Your task to perform on an android device: Open Google Maps Image 0: 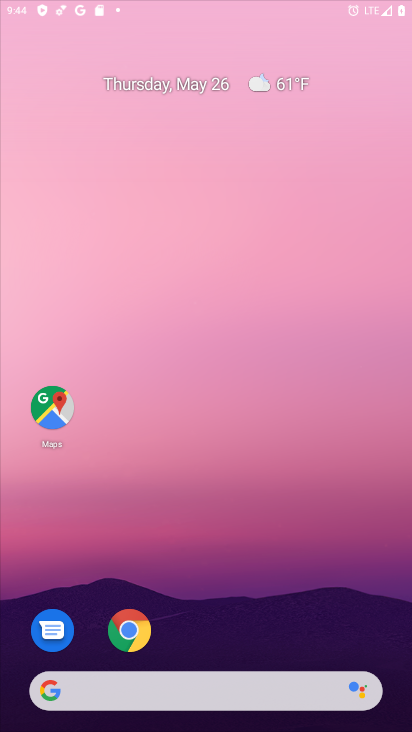
Step 0: press home button
Your task to perform on an android device: Open Google Maps Image 1: 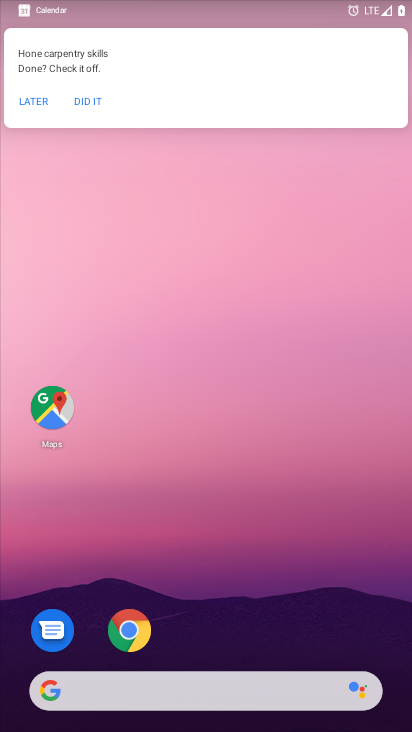
Step 1: click (57, 433)
Your task to perform on an android device: Open Google Maps Image 2: 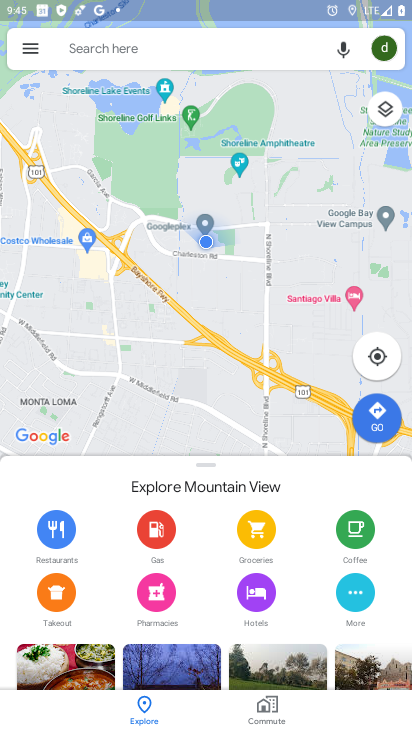
Step 2: task complete